Your task to perform on an android device: Open Google Chrome Image 0: 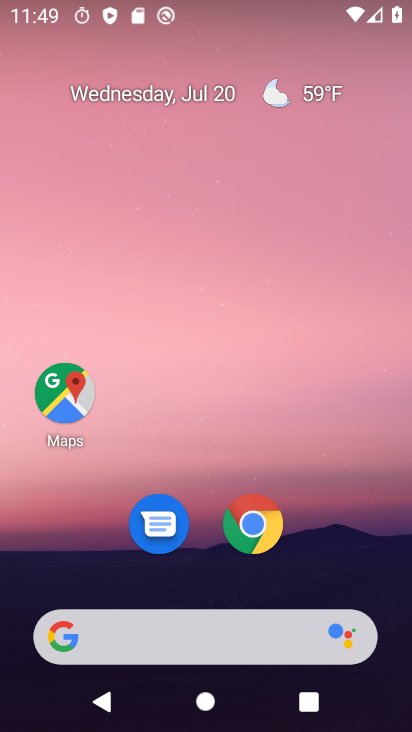
Step 0: press home button
Your task to perform on an android device: Open Google Chrome Image 1: 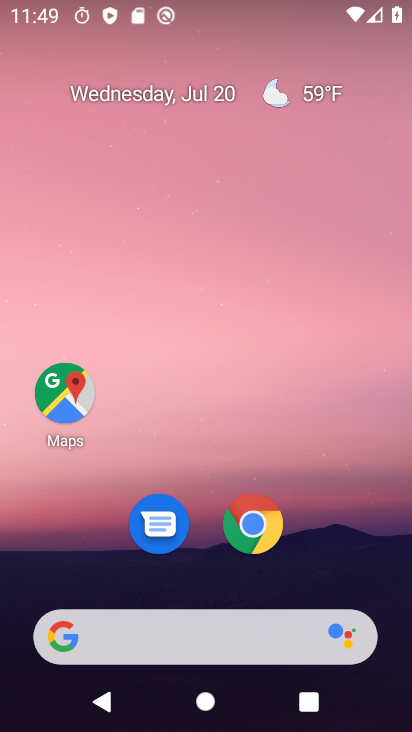
Step 1: drag from (189, 641) to (292, 49)
Your task to perform on an android device: Open Google Chrome Image 2: 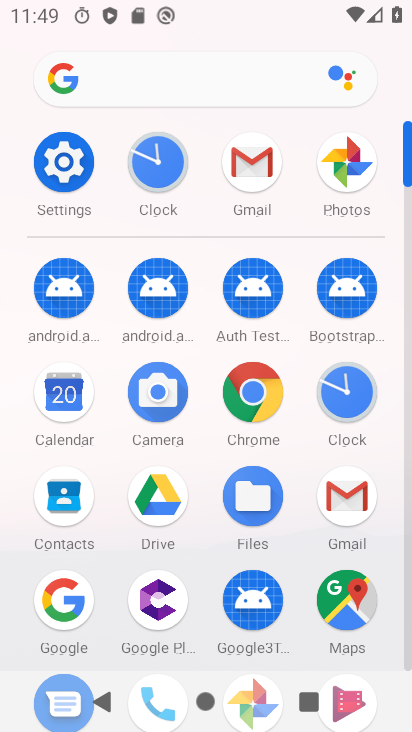
Step 2: click (250, 385)
Your task to perform on an android device: Open Google Chrome Image 3: 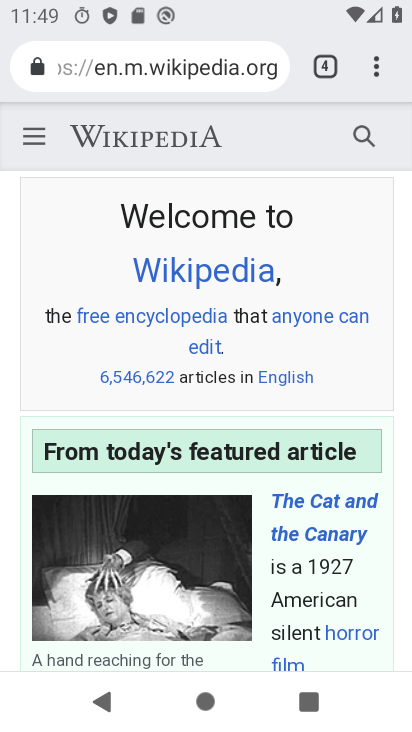
Step 3: task complete